Your task to perform on an android device: Open display settings Image 0: 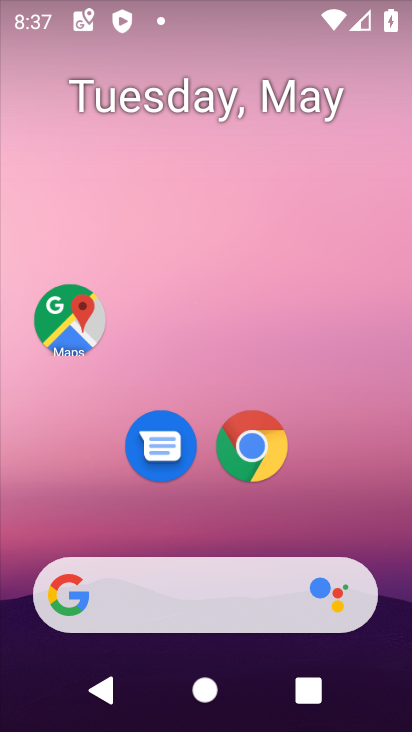
Step 0: drag from (350, 529) to (333, 22)
Your task to perform on an android device: Open display settings Image 1: 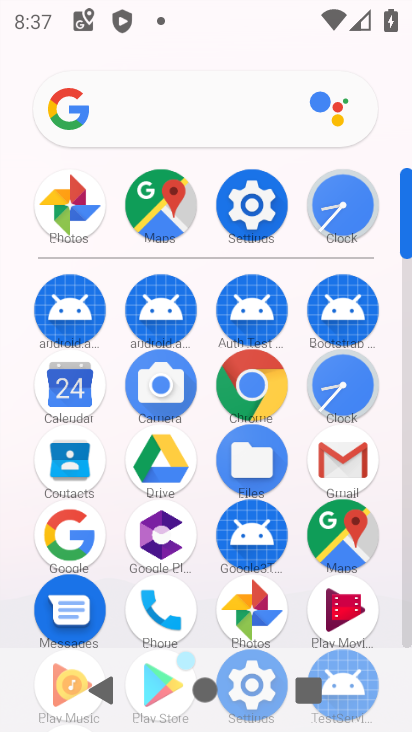
Step 1: click (251, 211)
Your task to perform on an android device: Open display settings Image 2: 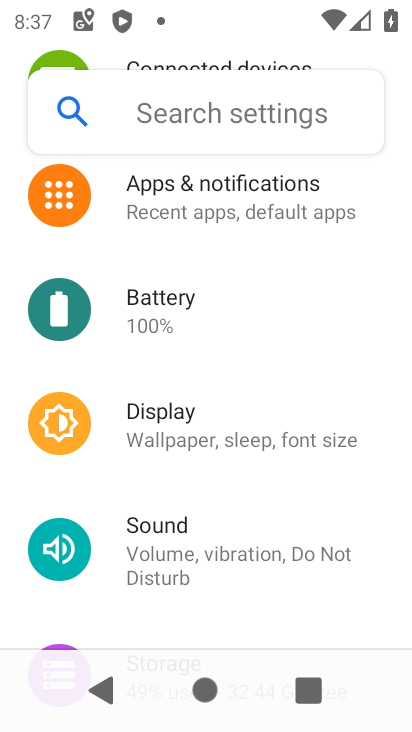
Step 2: click (157, 410)
Your task to perform on an android device: Open display settings Image 3: 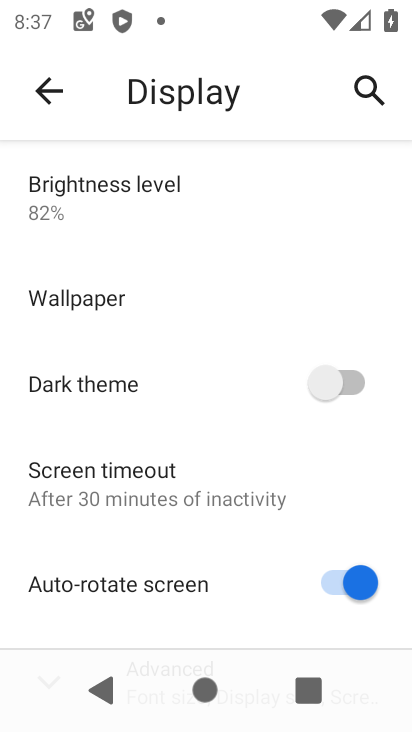
Step 3: task complete